Your task to perform on an android device: Open Maps and search for coffee Image 0: 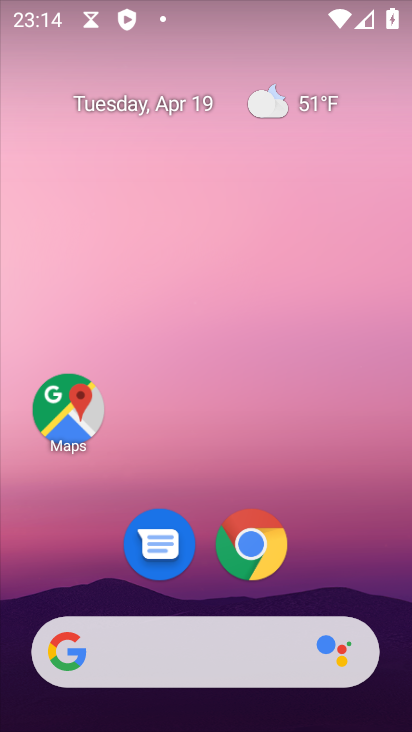
Step 0: drag from (341, 568) to (365, 73)
Your task to perform on an android device: Open Maps and search for coffee Image 1: 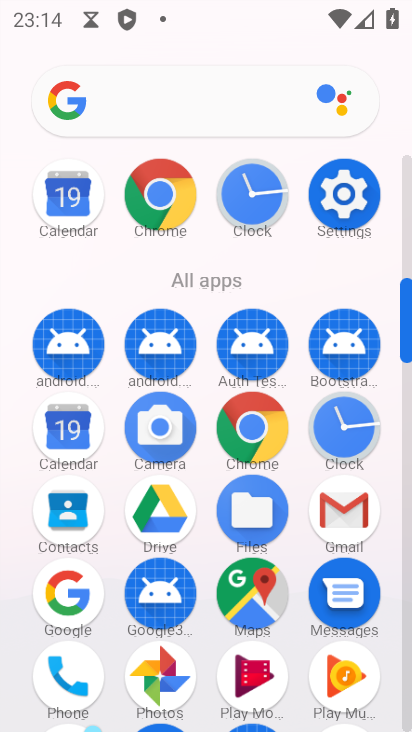
Step 1: click (237, 582)
Your task to perform on an android device: Open Maps and search for coffee Image 2: 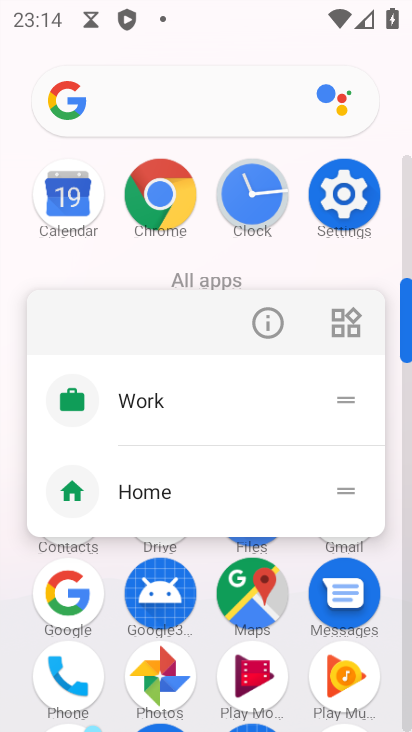
Step 2: click (257, 593)
Your task to perform on an android device: Open Maps and search for coffee Image 3: 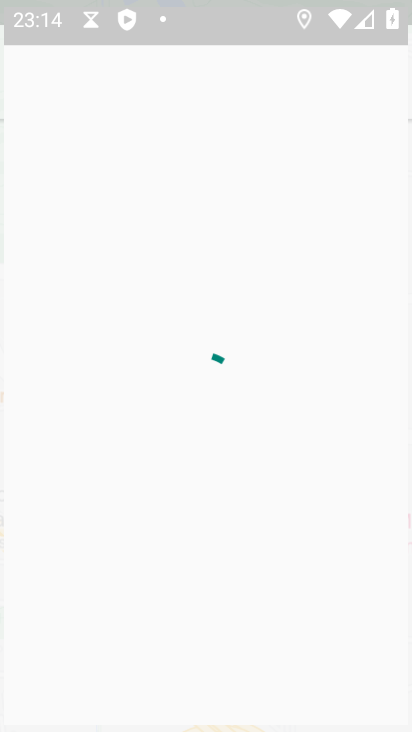
Step 3: click (23, 77)
Your task to perform on an android device: Open Maps and search for coffee Image 4: 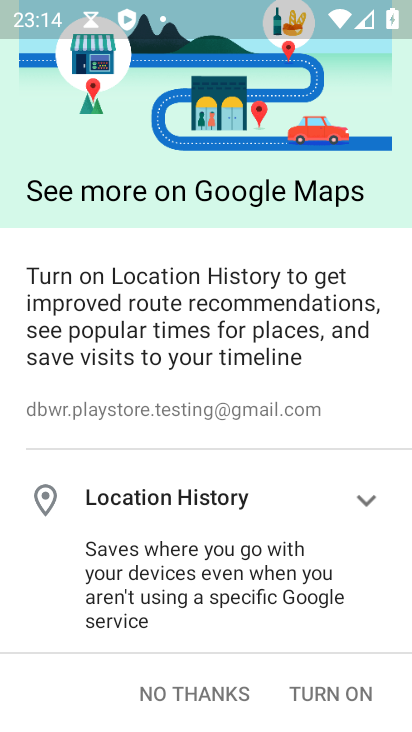
Step 4: click (156, 684)
Your task to perform on an android device: Open Maps and search for coffee Image 5: 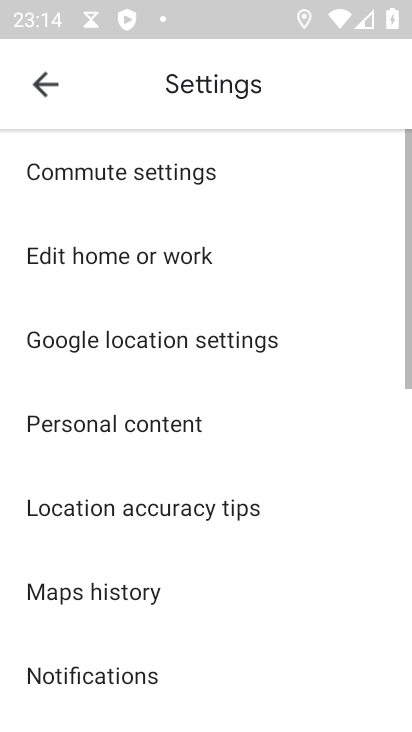
Step 5: click (48, 94)
Your task to perform on an android device: Open Maps and search for coffee Image 6: 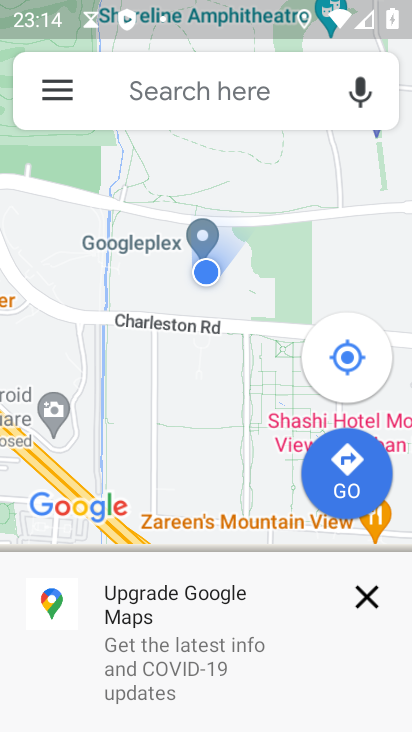
Step 6: click (173, 88)
Your task to perform on an android device: Open Maps and search for coffee Image 7: 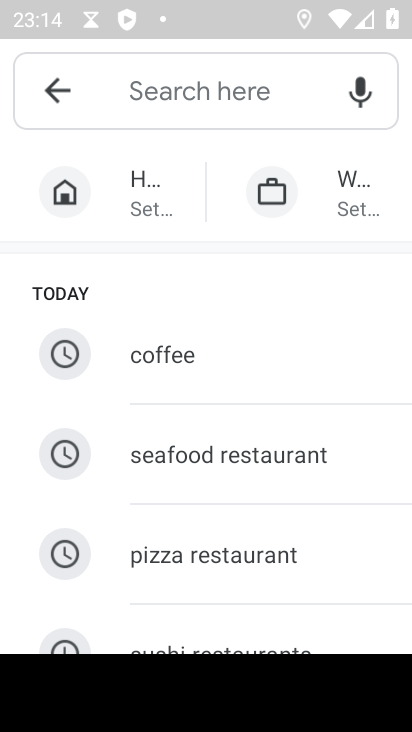
Step 7: type "coffee"
Your task to perform on an android device: Open Maps and search for coffee Image 8: 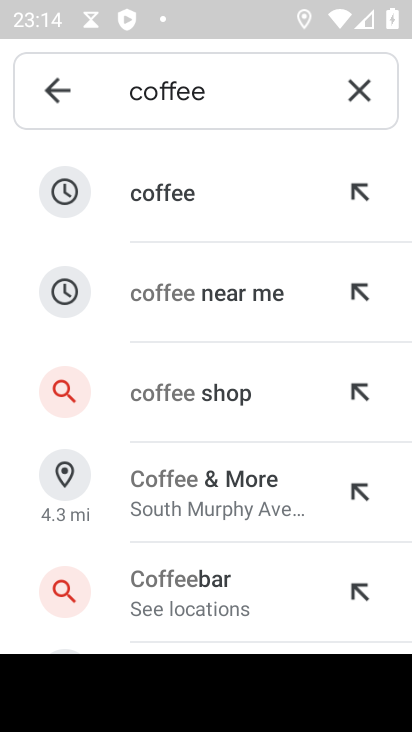
Step 8: click (146, 206)
Your task to perform on an android device: Open Maps and search for coffee Image 9: 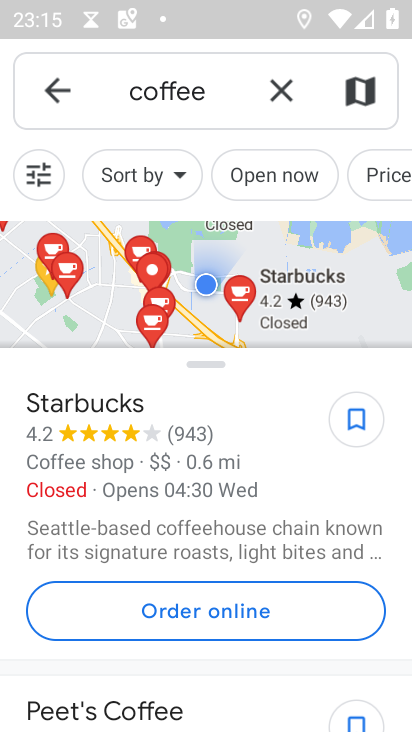
Step 9: task complete